Your task to perform on an android device: turn on location history Image 0: 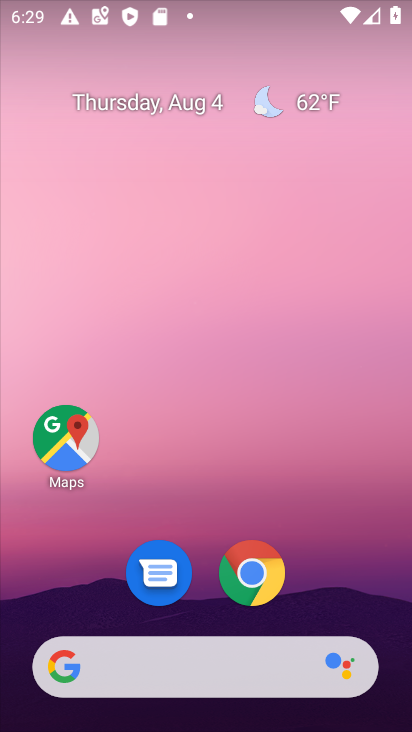
Step 0: press home button
Your task to perform on an android device: turn on location history Image 1: 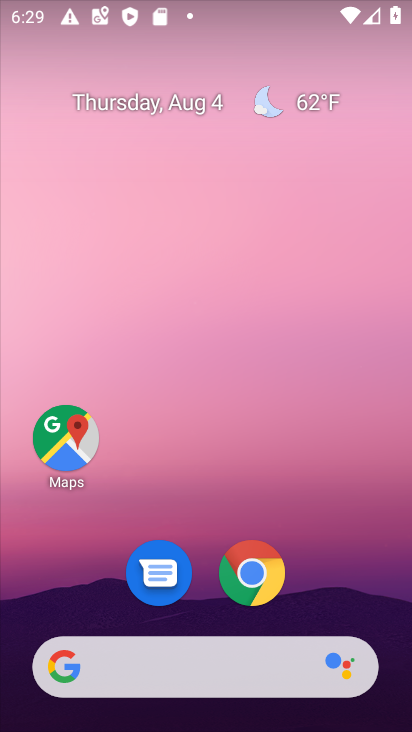
Step 1: drag from (217, 483) to (204, 197)
Your task to perform on an android device: turn on location history Image 2: 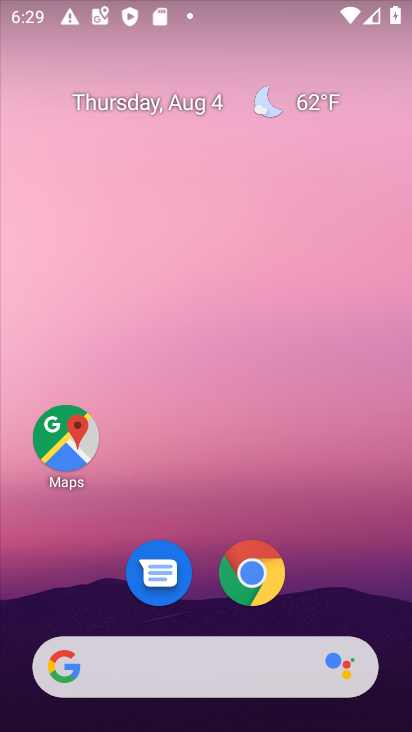
Step 2: drag from (211, 612) to (246, 173)
Your task to perform on an android device: turn on location history Image 3: 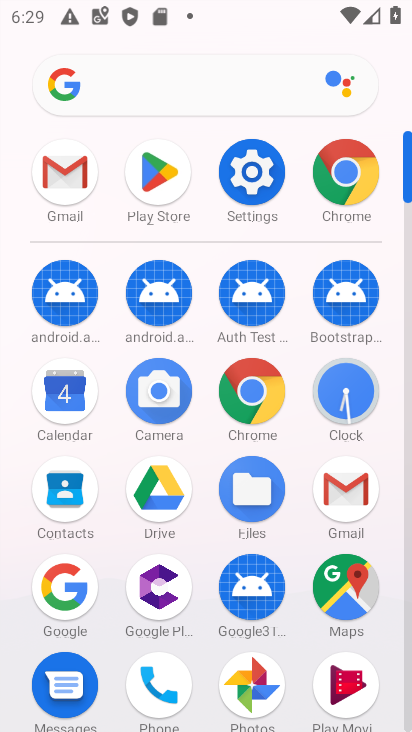
Step 3: click (257, 188)
Your task to perform on an android device: turn on location history Image 4: 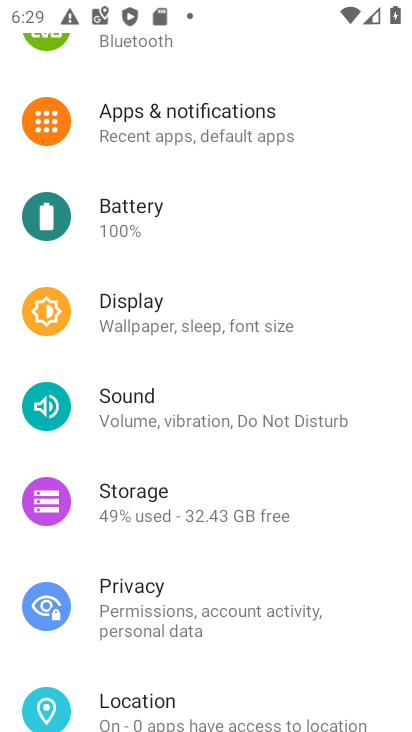
Step 4: click (154, 709)
Your task to perform on an android device: turn on location history Image 5: 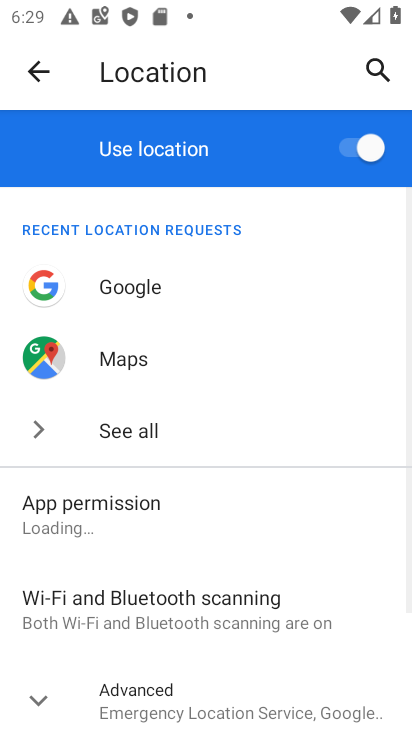
Step 5: drag from (338, 619) to (315, 333)
Your task to perform on an android device: turn on location history Image 6: 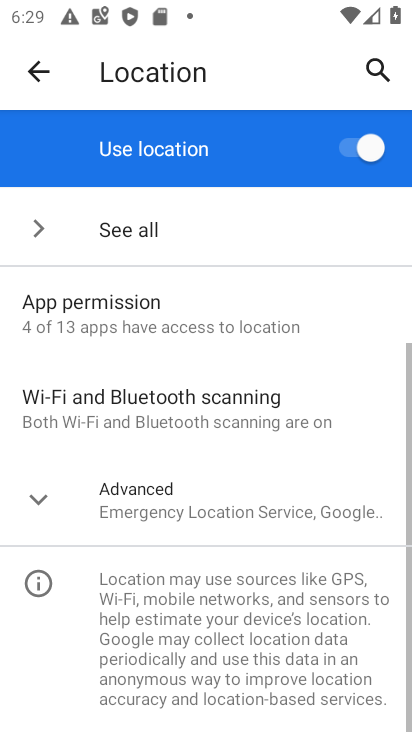
Step 6: click (158, 508)
Your task to perform on an android device: turn on location history Image 7: 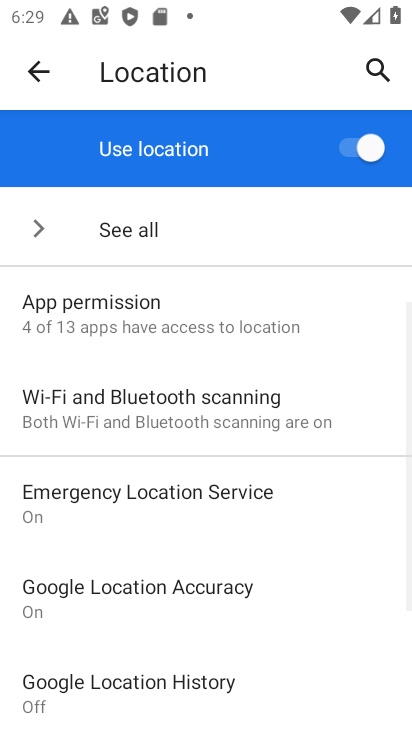
Step 7: drag from (327, 637) to (318, 449)
Your task to perform on an android device: turn on location history Image 8: 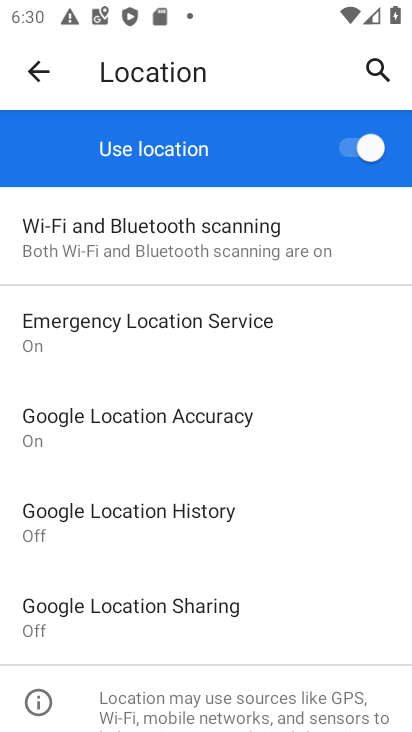
Step 8: click (150, 532)
Your task to perform on an android device: turn on location history Image 9: 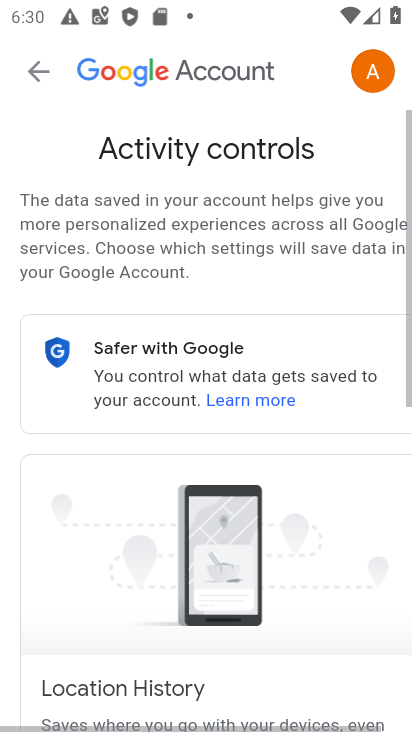
Step 9: drag from (350, 623) to (336, 431)
Your task to perform on an android device: turn on location history Image 10: 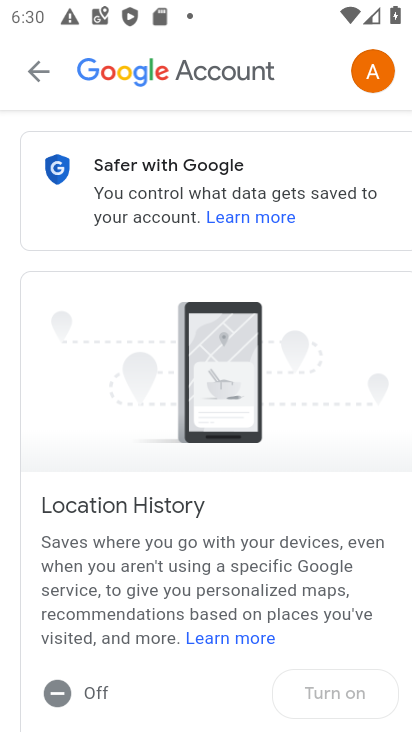
Step 10: click (347, 688)
Your task to perform on an android device: turn on location history Image 11: 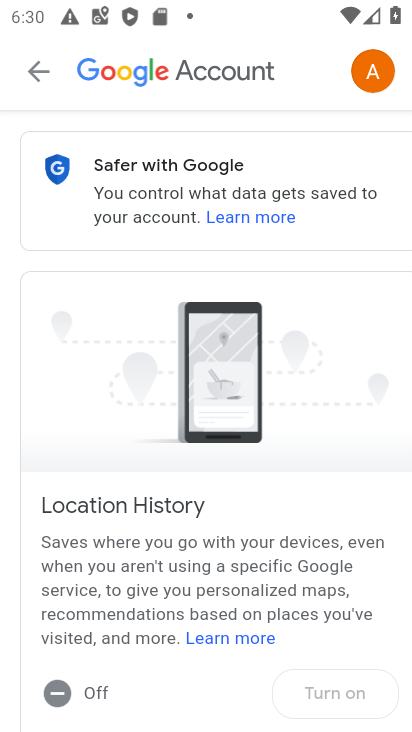
Step 11: task complete